Your task to perform on an android device: Toggle the flashlight Image 0: 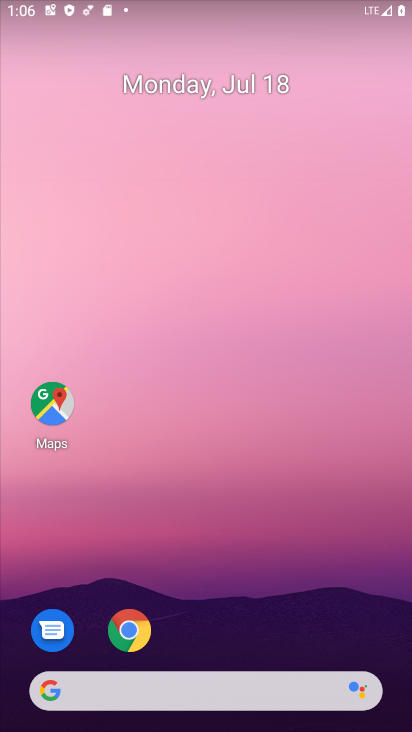
Step 0: drag from (244, 599) to (208, 36)
Your task to perform on an android device: Toggle the flashlight Image 1: 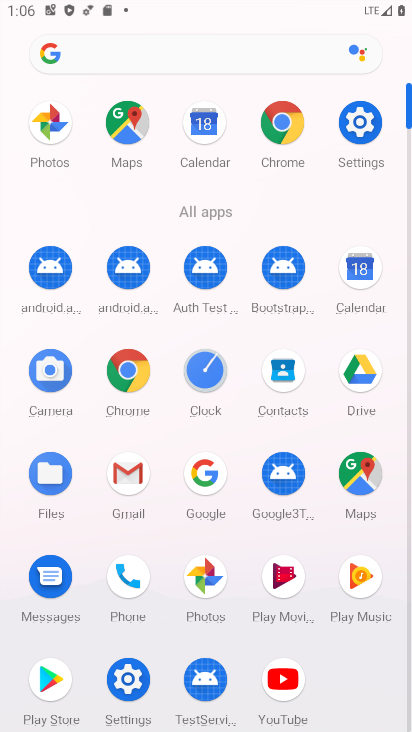
Step 1: click (359, 127)
Your task to perform on an android device: Toggle the flashlight Image 2: 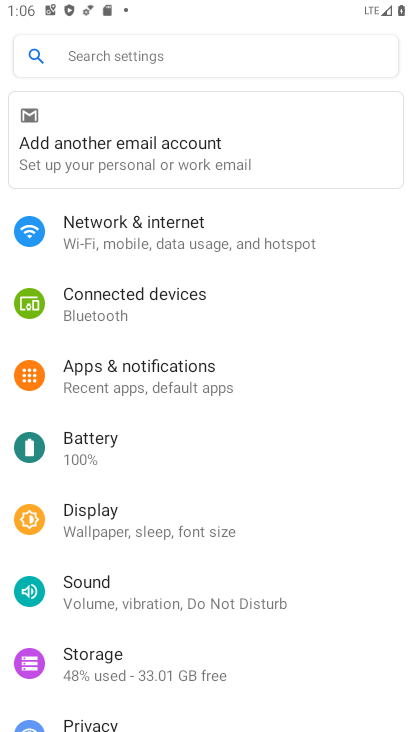
Step 2: click (199, 51)
Your task to perform on an android device: Toggle the flashlight Image 3: 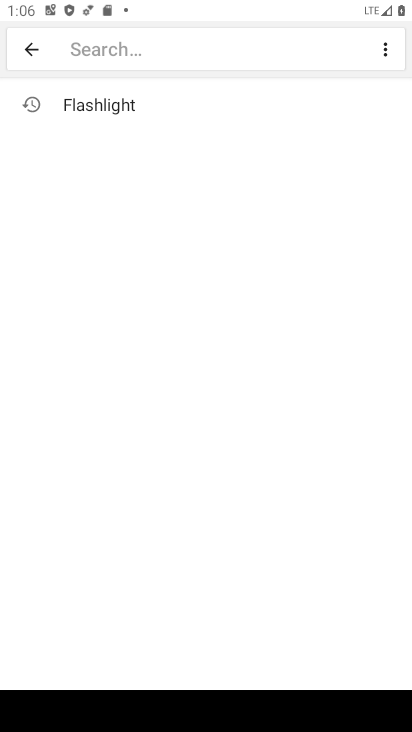
Step 3: click (122, 105)
Your task to perform on an android device: Toggle the flashlight Image 4: 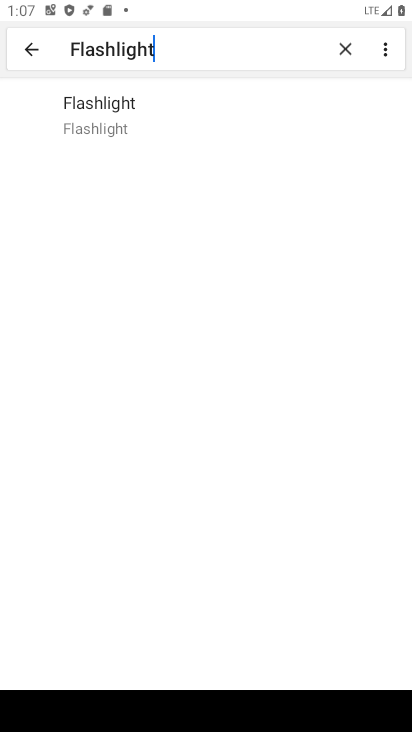
Step 4: click (126, 101)
Your task to perform on an android device: Toggle the flashlight Image 5: 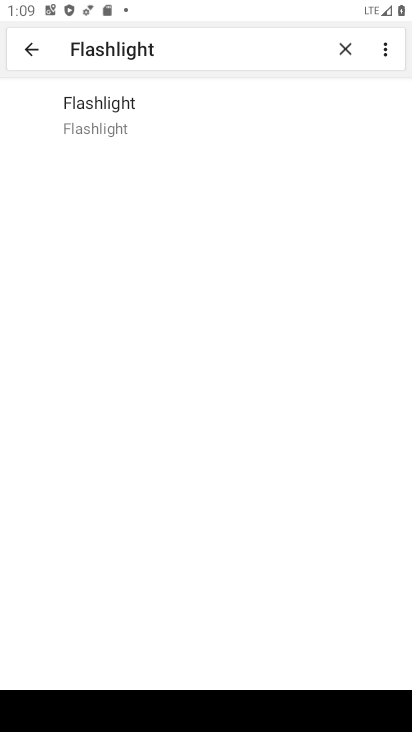
Step 5: task complete